Your task to perform on an android device: Add "bose soundlink mini" to the cart on costco, then select checkout. Image 0: 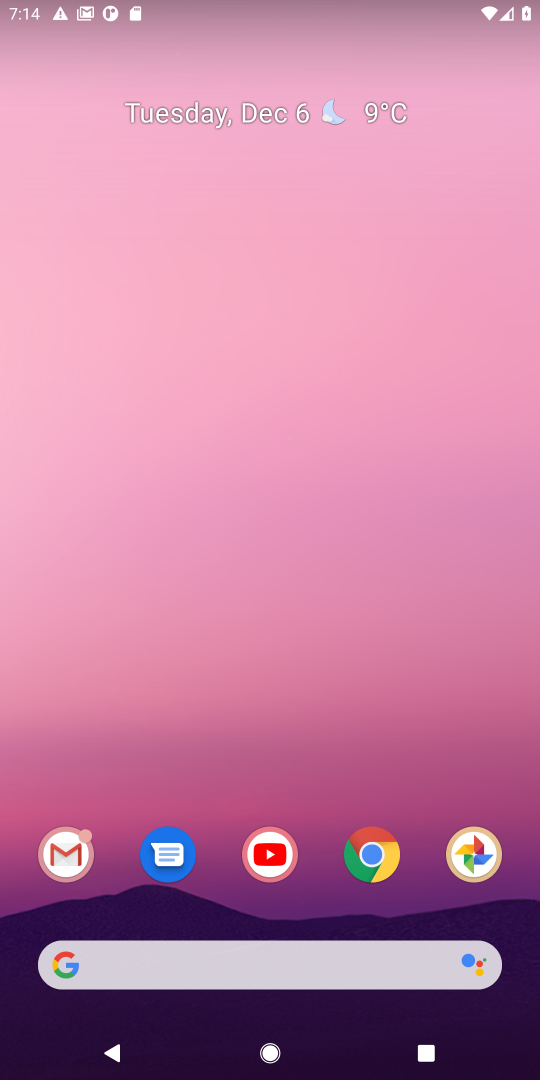
Step 0: click (369, 838)
Your task to perform on an android device: Add "bose soundlink mini" to the cart on costco, then select checkout. Image 1: 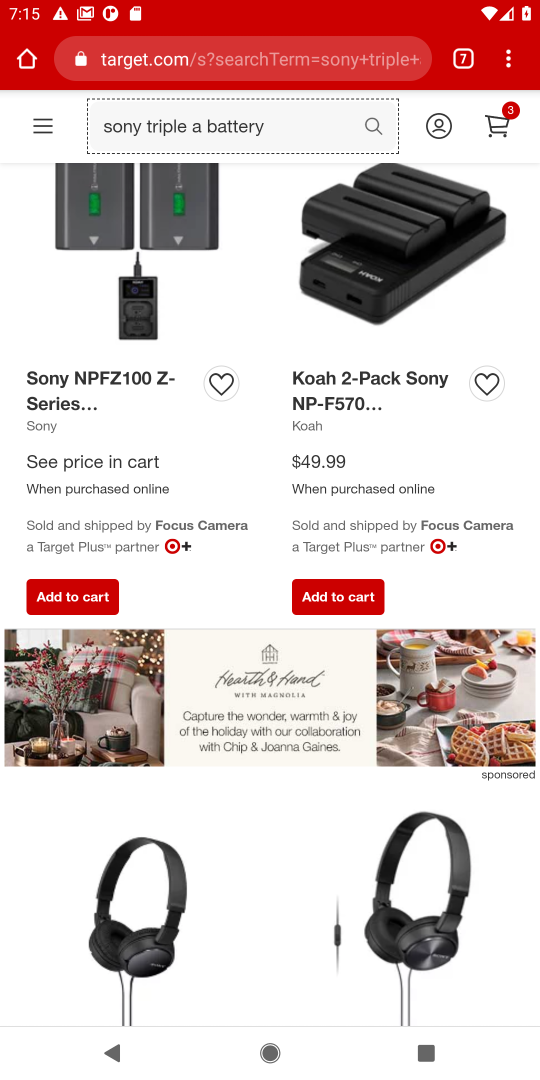
Step 1: click (460, 65)
Your task to perform on an android device: Add "bose soundlink mini" to the cart on costco, then select checkout. Image 2: 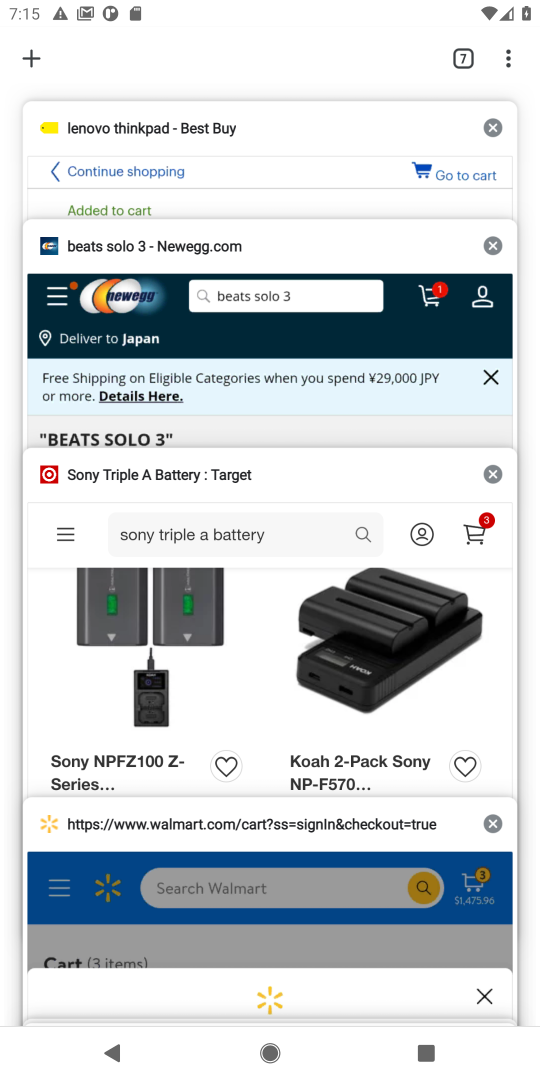
Step 2: drag from (212, 862) to (326, 295)
Your task to perform on an android device: Add "bose soundlink mini" to the cart on costco, then select checkout. Image 3: 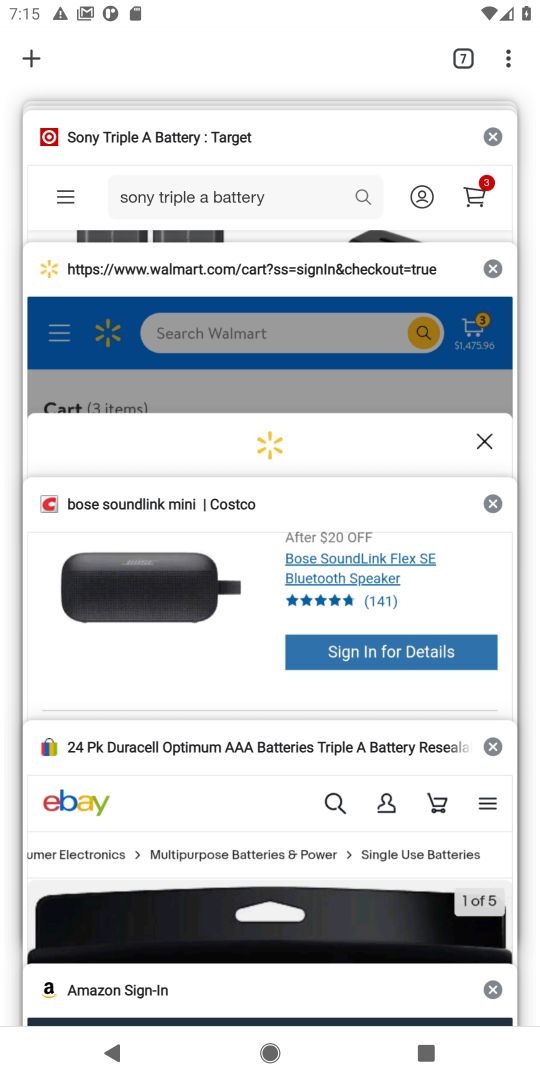
Step 3: click (132, 647)
Your task to perform on an android device: Add "bose soundlink mini" to the cart on costco, then select checkout. Image 4: 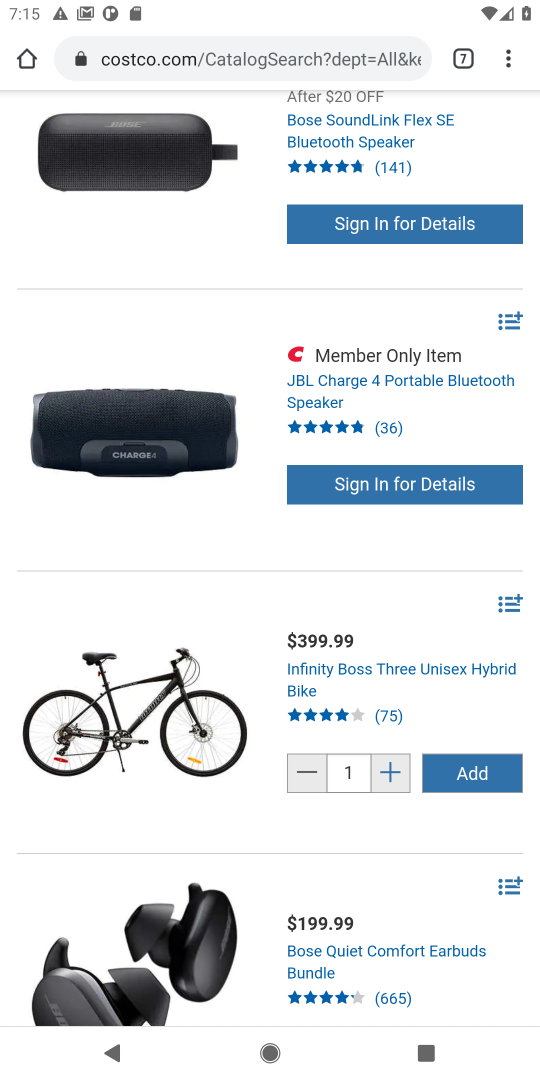
Step 4: task complete